Your task to perform on an android device: Open the calendar app, open the side menu, and click the "Day" option Image 0: 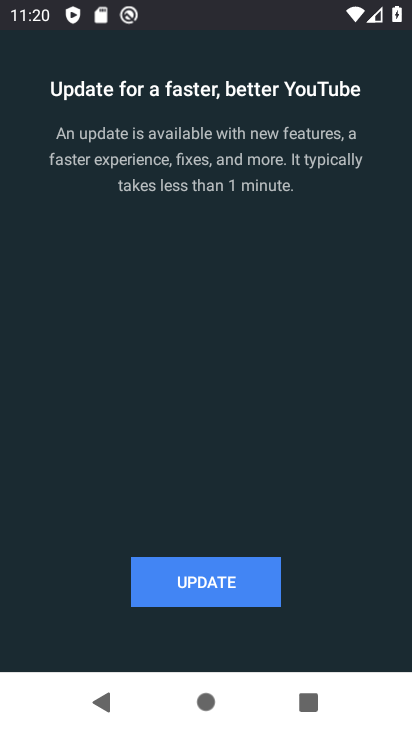
Step 0: press back button
Your task to perform on an android device: Open the calendar app, open the side menu, and click the "Day" option Image 1: 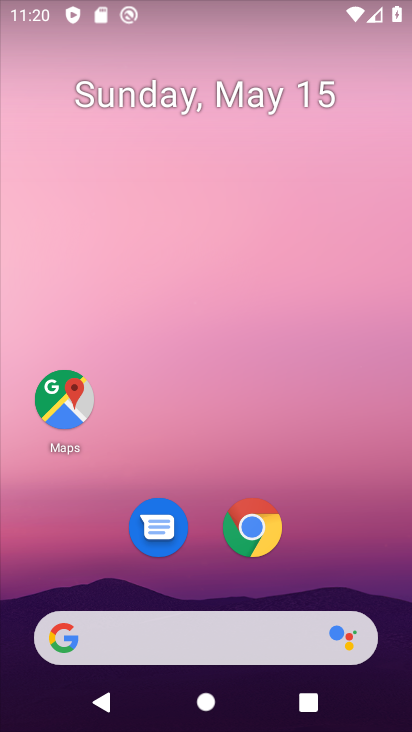
Step 1: drag from (384, 550) to (376, 175)
Your task to perform on an android device: Open the calendar app, open the side menu, and click the "Day" option Image 2: 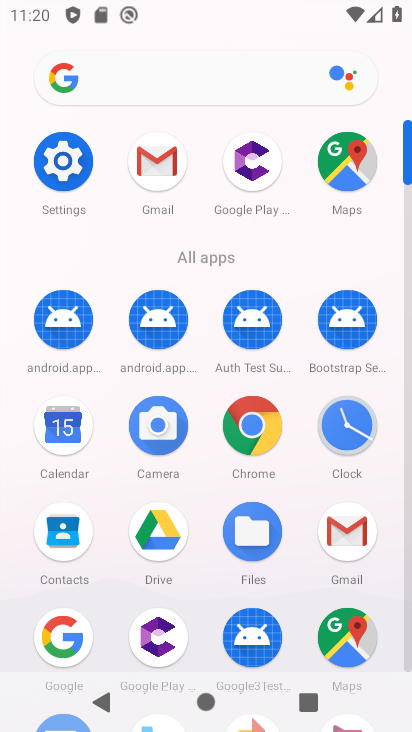
Step 2: click (36, 459)
Your task to perform on an android device: Open the calendar app, open the side menu, and click the "Day" option Image 3: 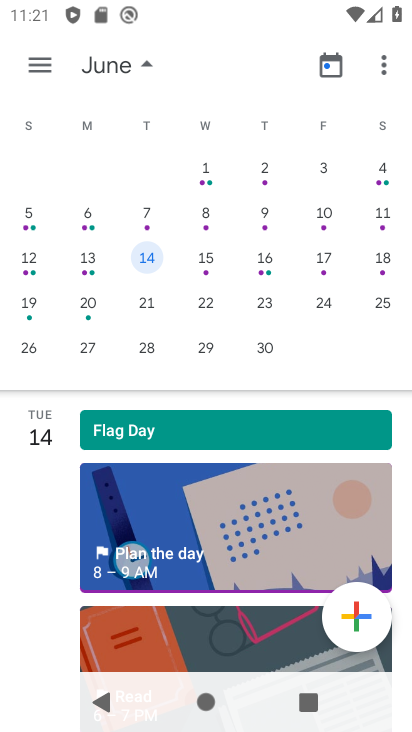
Step 3: click (18, 57)
Your task to perform on an android device: Open the calendar app, open the side menu, and click the "Day" option Image 4: 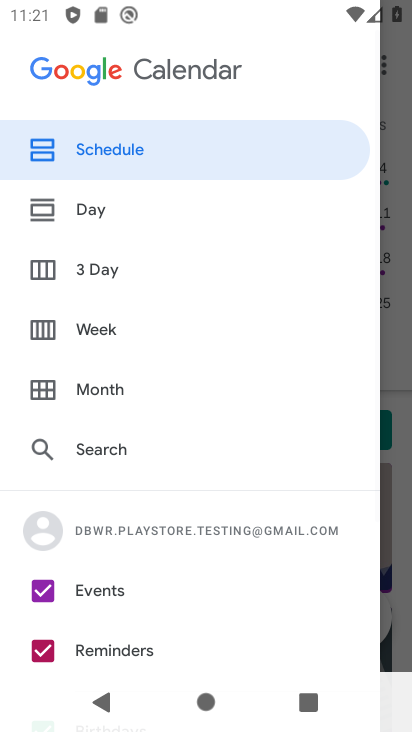
Step 4: click (102, 216)
Your task to perform on an android device: Open the calendar app, open the side menu, and click the "Day" option Image 5: 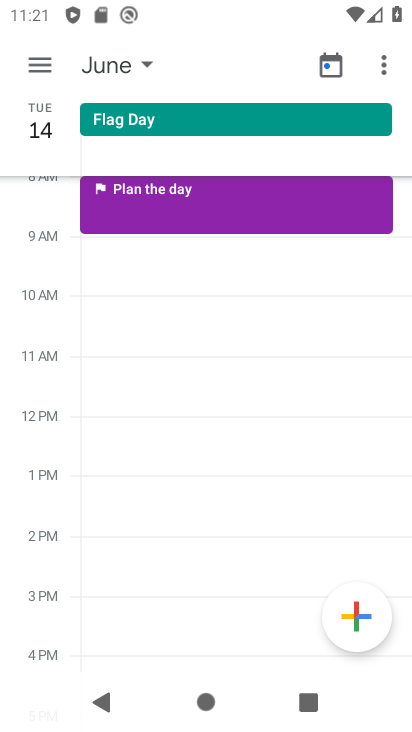
Step 5: task complete